Your task to perform on an android device: check storage Image 0: 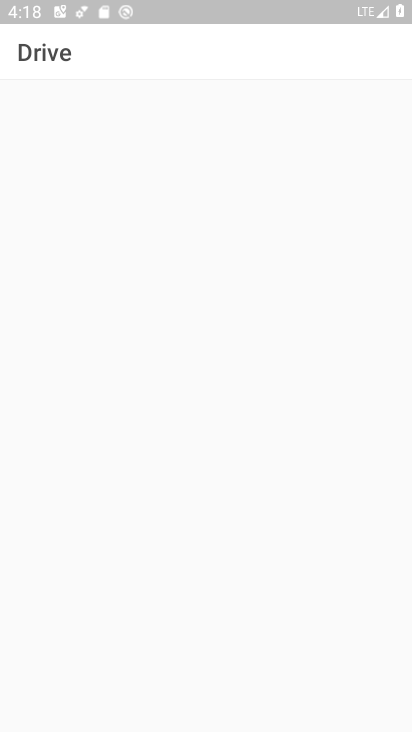
Step 0: press home button
Your task to perform on an android device: check storage Image 1: 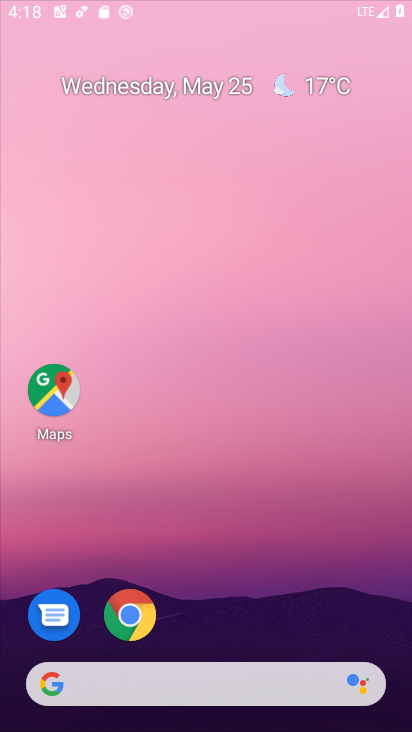
Step 1: drag from (303, 470) to (257, 15)
Your task to perform on an android device: check storage Image 2: 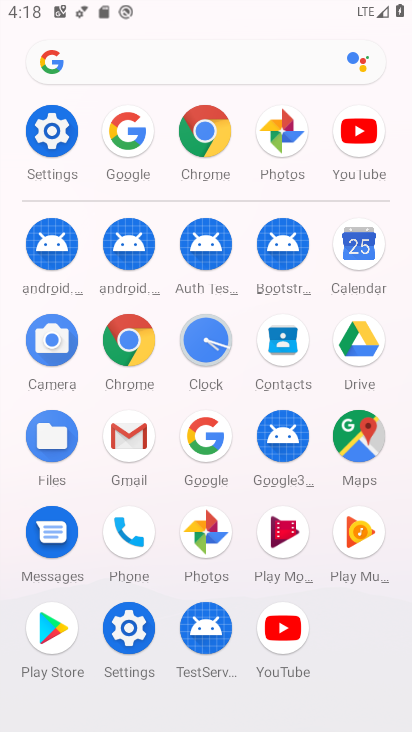
Step 2: click (58, 120)
Your task to perform on an android device: check storage Image 3: 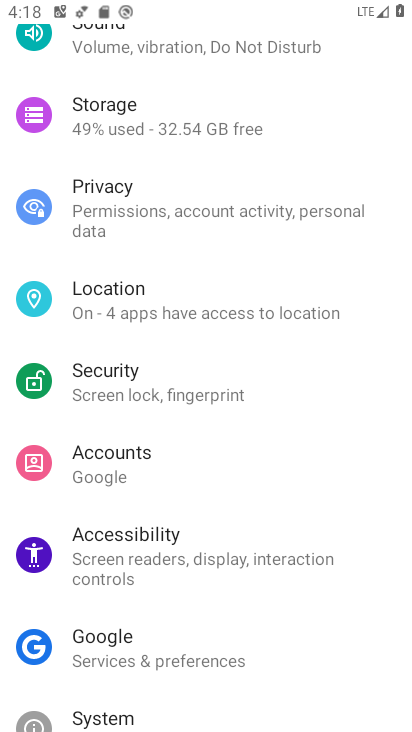
Step 3: click (172, 121)
Your task to perform on an android device: check storage Image 4: 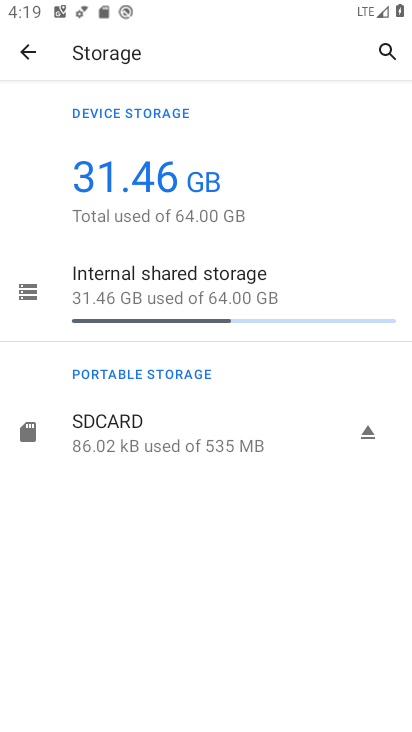
Step 4: task complete